Your task to perform on an android device: Show me popular videos on Youtube Image 0: 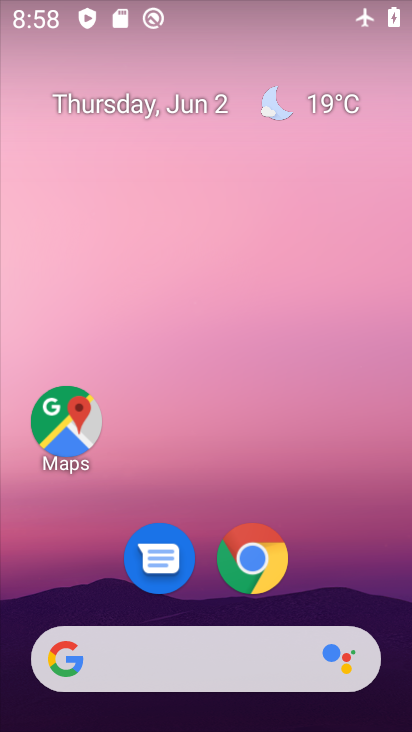
Step 0: drag from (389, 613) to (260, 47)
Your task to perform on an android device: Show me popular videos on Youtube Image 1: 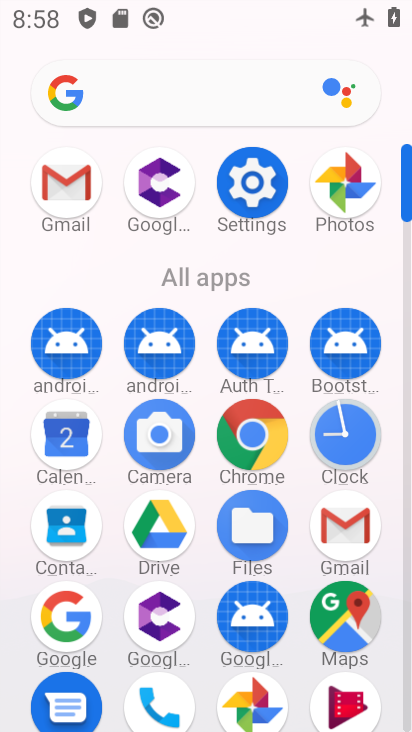
Step 1: click (406, 675)
Your task to perform on an android device: Show me popular videos on Youtube Image 2: 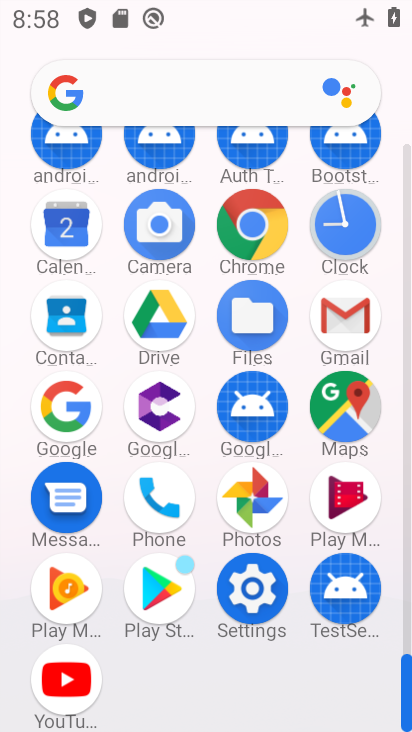
Step 2: click (66, 675)
Your task to perform on an android device: Show me popular videos on Youtube Image 3: 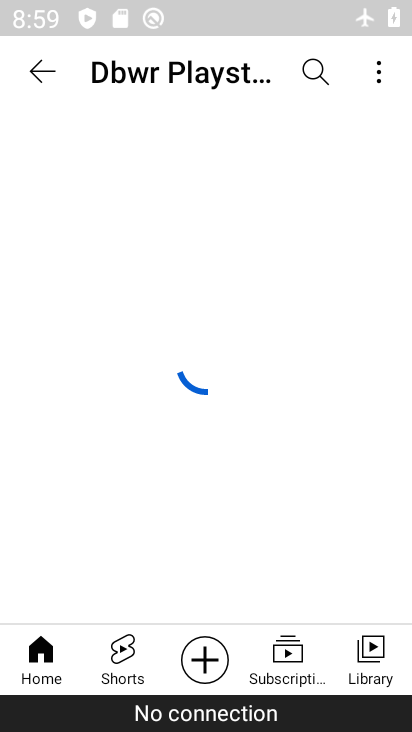
Step 3: press back button
Your task to perform on an android device: Show me popular videos on Youtube Image 4: 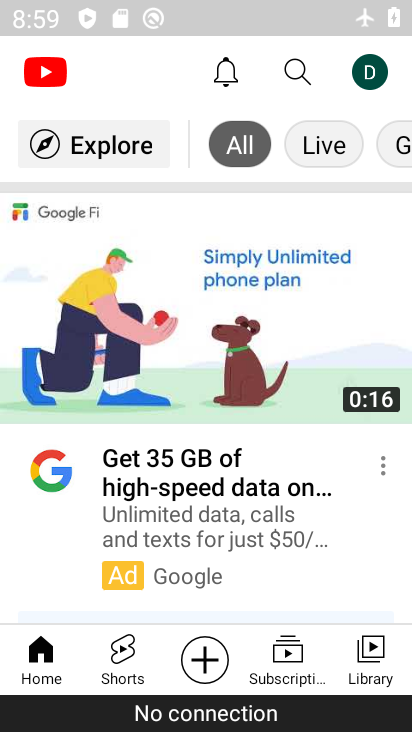
Step 4: click (79, 151)
Your task to perform on an android device: Show me popular videos on Youtube Image 5: 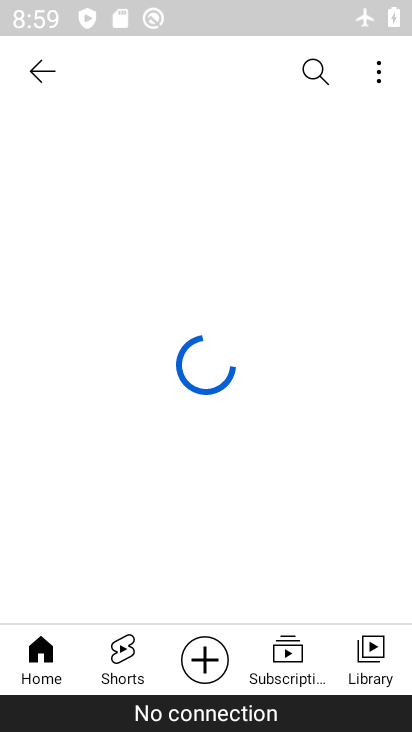
Step 5: task complete